Your task to perform on an android device: What is the news today? Image 0: 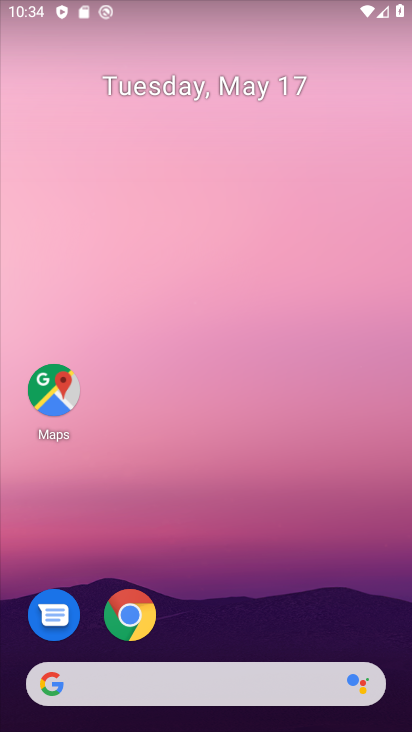
Step 0: click (126, 611)
Your task to perform on an android device: What is the news today? Image 1: 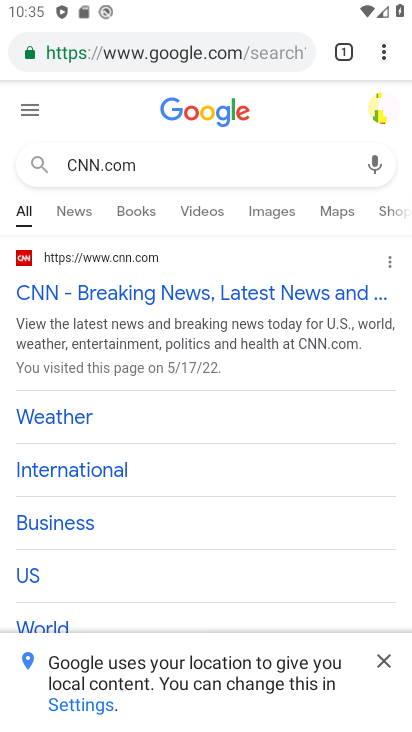
Step 1: click (142, 60)
Your task to perform on an android device: What is the news today? Image 2: 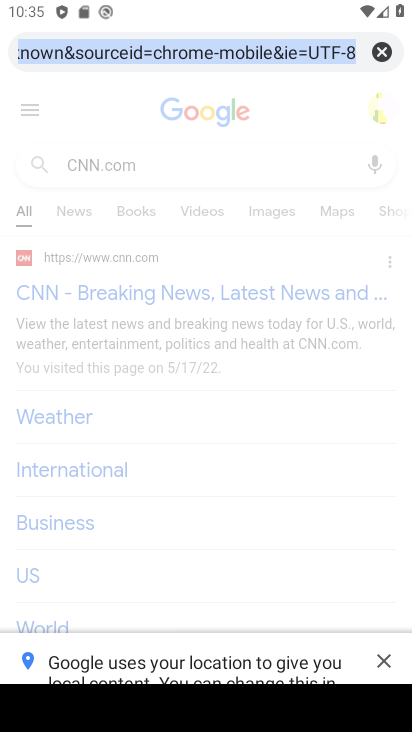
Step 2: type "news"
Your task to perform on an android device: What is the news today? Image 3: 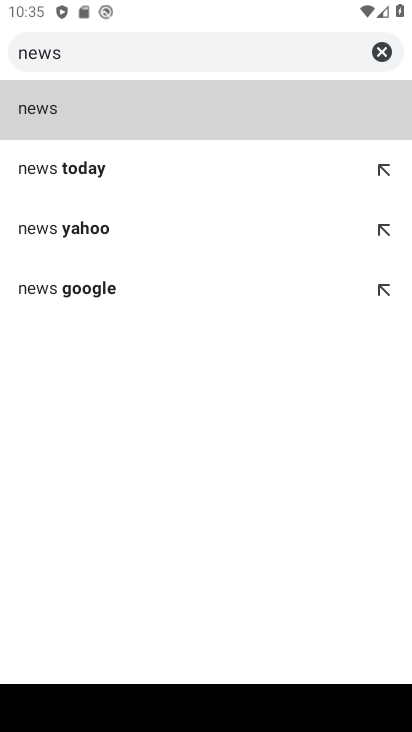
Step 3: click (49, 102)
Your task to perform on an android device: What is the news today? Image 4: 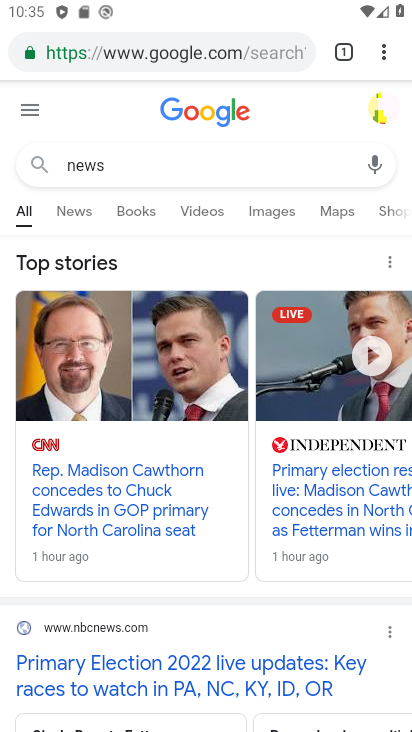
Step 4: task complete